Your task to perform on an android device: What's on my calendar today? Image 0: 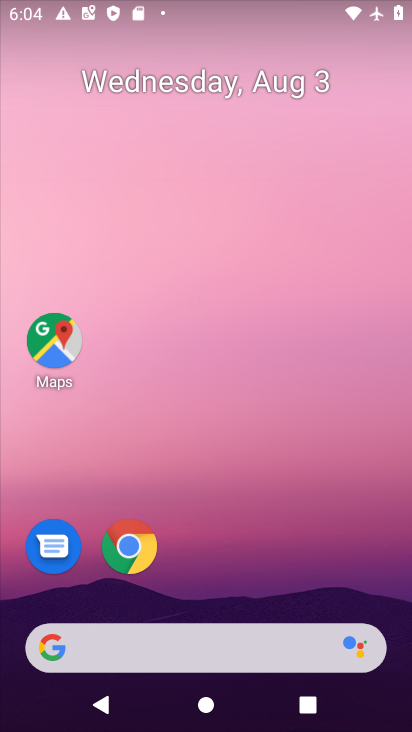
Step 0: press home button
Your task to perform on an android device: What's on my calendar today? Image 1: 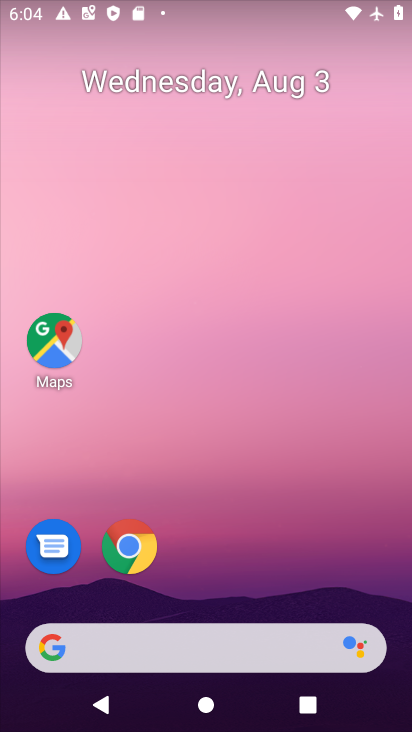
Step 1: drag from (224, 605) to (305, 141)
Your task to perform on an android device: What's on my calendar today? Image 2: 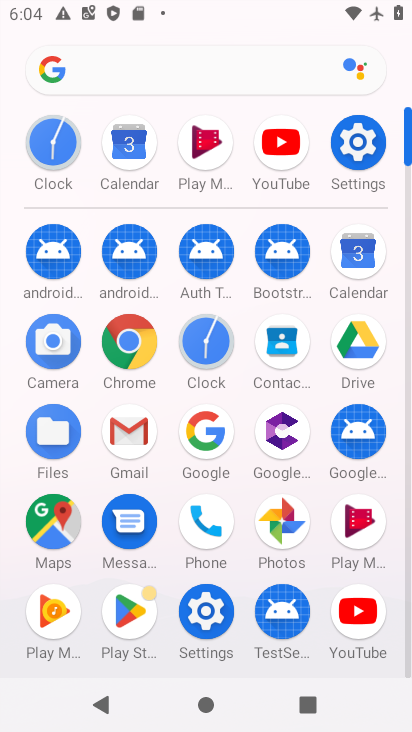
Step 2: click (361, 246)
Your task to perform on an android device: What's on my calendar today? Image 3: 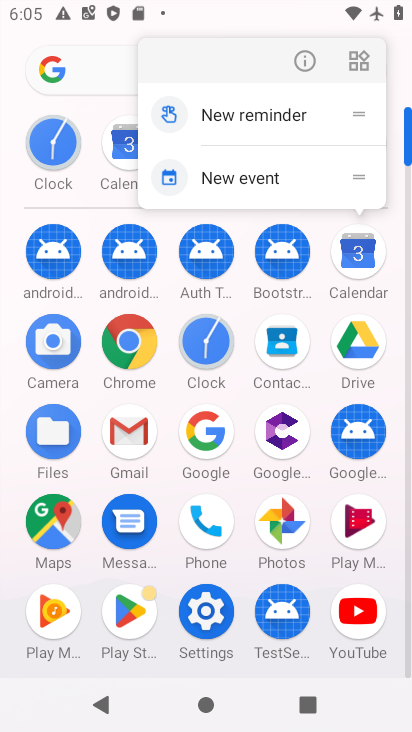
Step 3: click (364, 266)
Your task to perform on an android device: What's on my calendar today? Image 4: 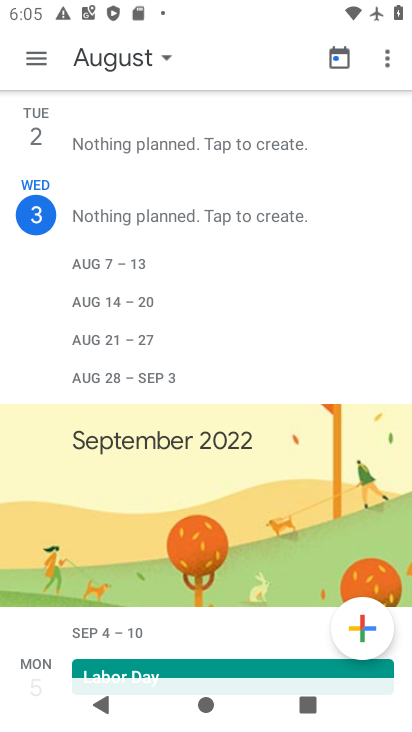
Step 4: click (25, 214)
Your task to perform on an android device: What's on my calendar today? Image 5: 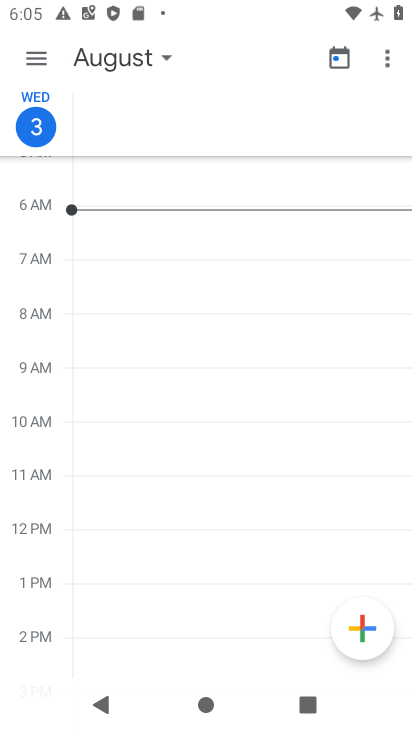
Step 5: task complete